Your task to perform on an android device: Show me popular games on the Play Store Image 0: 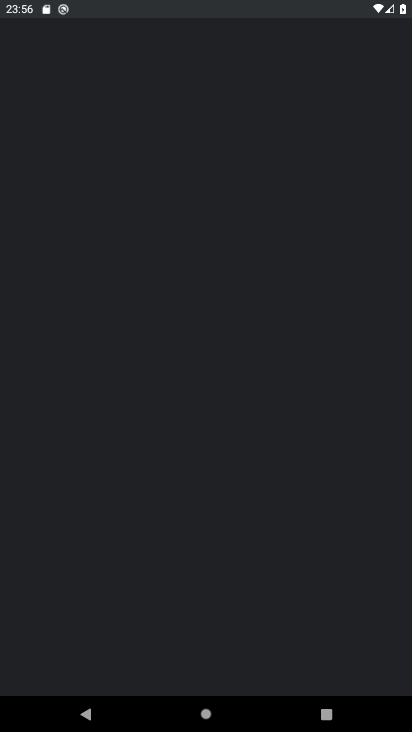
Step 0: drag from (151, 632) to (168, 275)
Your task to perform on an android device: Show me popular games on the Play Store Image 1: 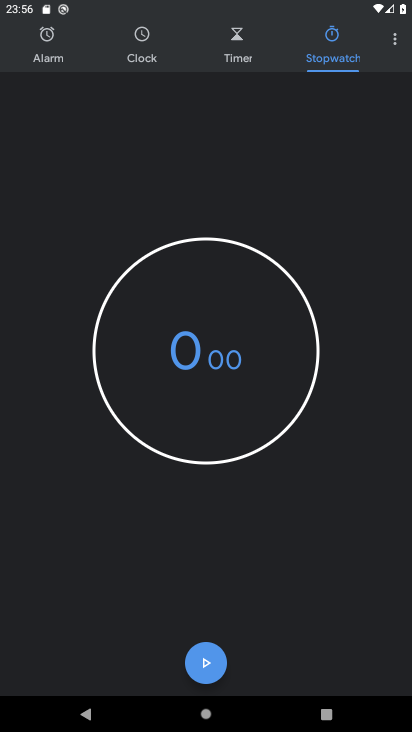
Step 1: press home button
Your task to perform on an android device: Show me popular games on the Play Store Image 2: 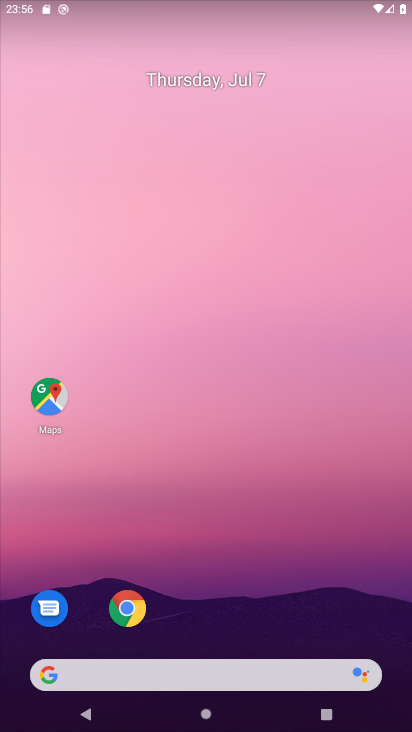
Step 2: drag from (240, 637) to (213, 35)
Your task to perform on an android device: Show me popular games on the Play Store Image 3: 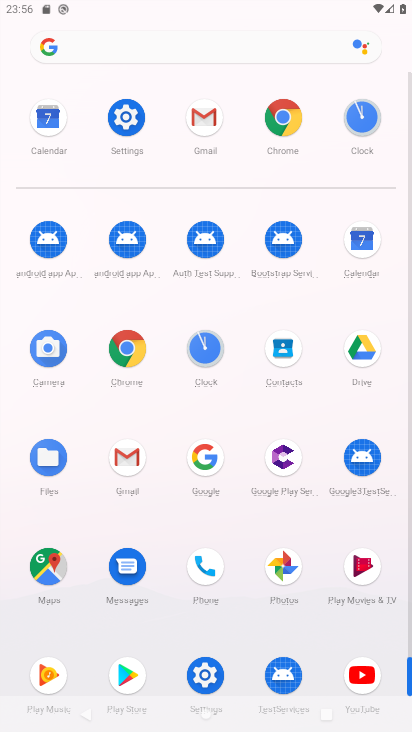
Step 3: click (137, 670)
Your task to perform on an android device: Show me popular games on the Play Store Image 4: 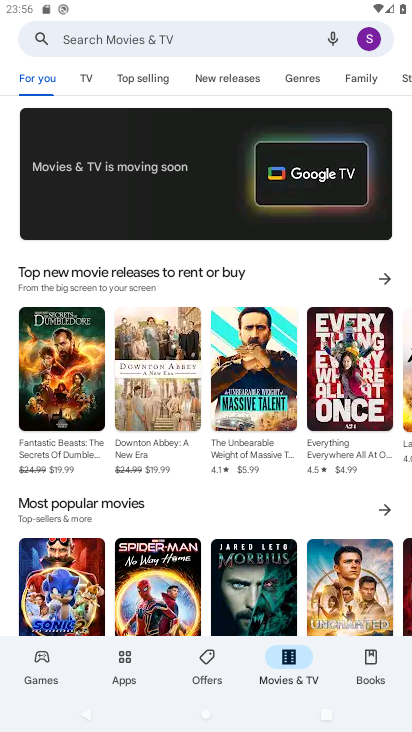
Step 4: click (60, 660)
Your task to perform on an android device: Show me popular games on the Play Store Image 5: 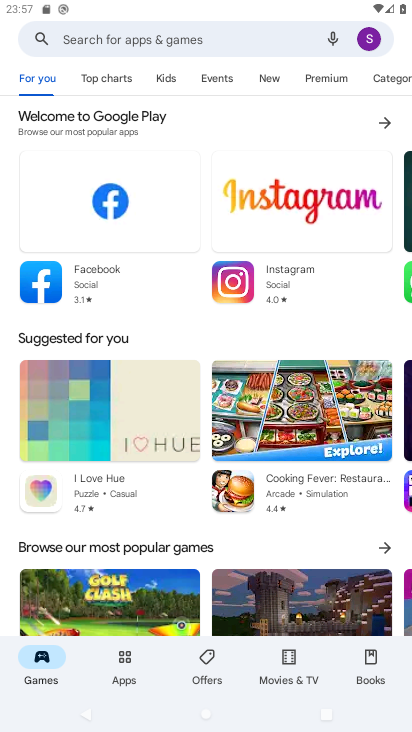
Step 5: task complete